Your task to perform on an android device: Search for seafood restaurants on Google Maps Image 0: 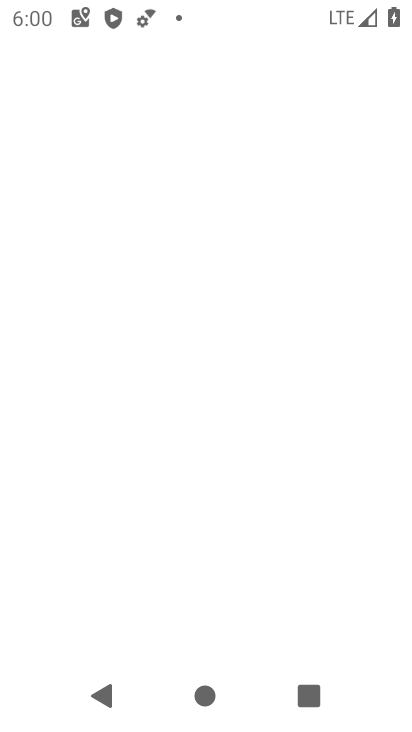
Step 0: press home button
Your task to perform on an android device: Search for seafood restaurants on Google Maps Image 1: 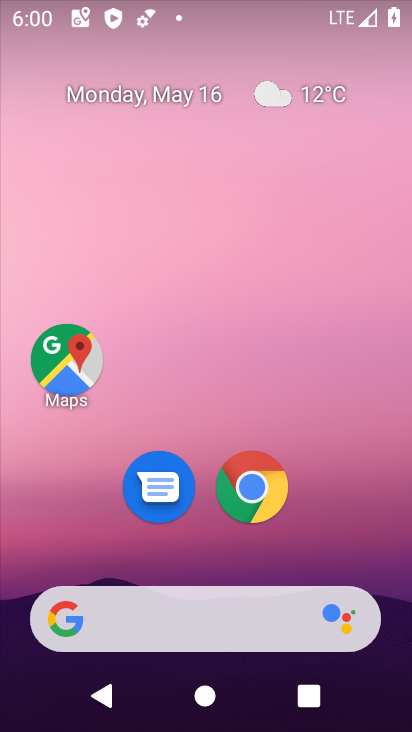
Step 1: click (70, 364)
Your task to perform on an android device: Search for seafood restaurants on Google Maps Image 2: 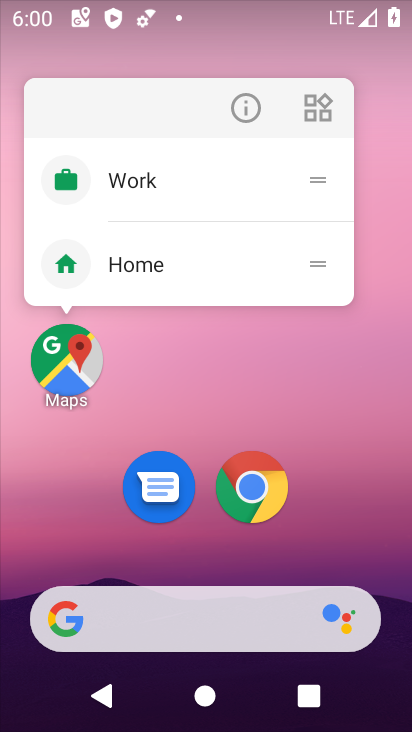
Step 2: click (69, 375)
Your task to perform on an android device: Search for seafood restaurants on Google Maps Image 3: 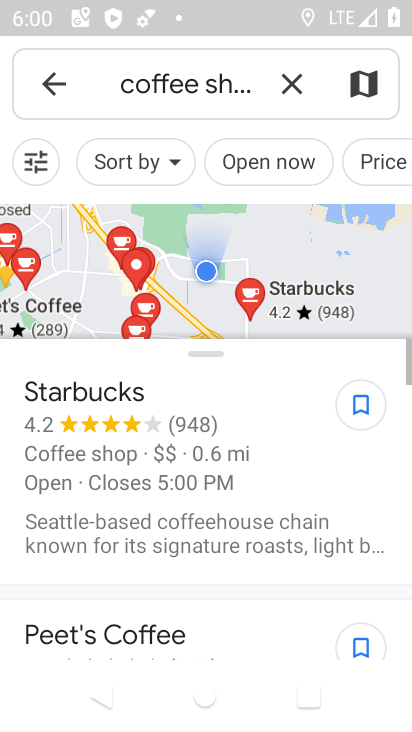
Step 3: click (216, 83)
Your task to perform on an android device: Search for seafood restaurants on Google Maps Image 4: 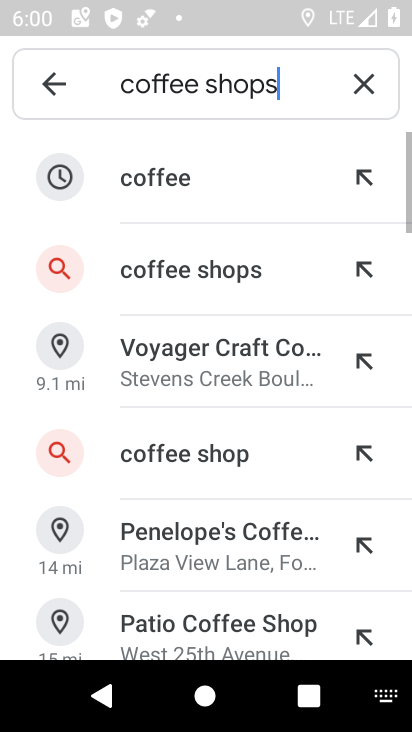
Step 4: click (354, 83)
Your task to perform on an android device: Search for seafood restaurants on Google Maps Image 5: 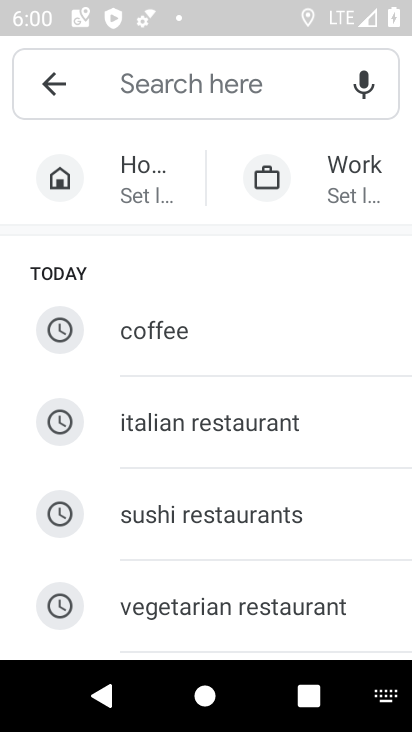
Step 5: type "seafood restaurants"
Your task to perform on an android device: Search for seafood restaurants on Google Maps Image 6: 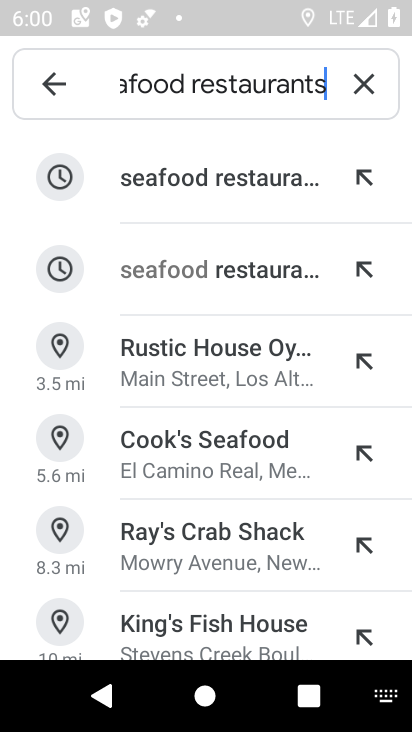
Step 6: press enter
Your task to perform on an android device: Search for seafood restaurants on Google Maps Image 7: 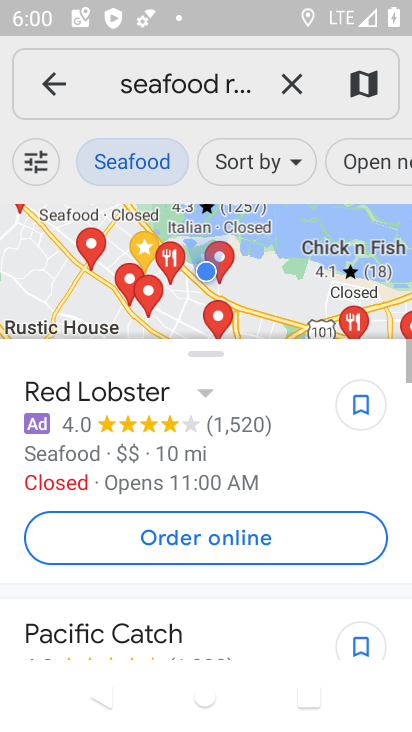
Step 7: task complete